Your task to perform on an android device: search for starred emails in the gmail app Image 0: 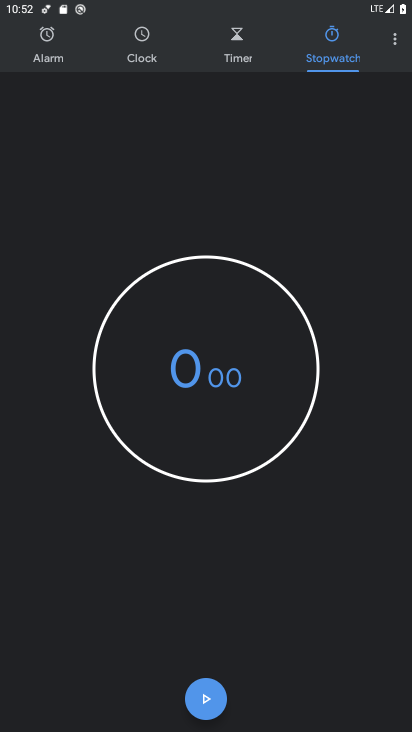
Step 0: press home button
Your task to perform on an android device: search for starred emails in the gmail app Image 1: 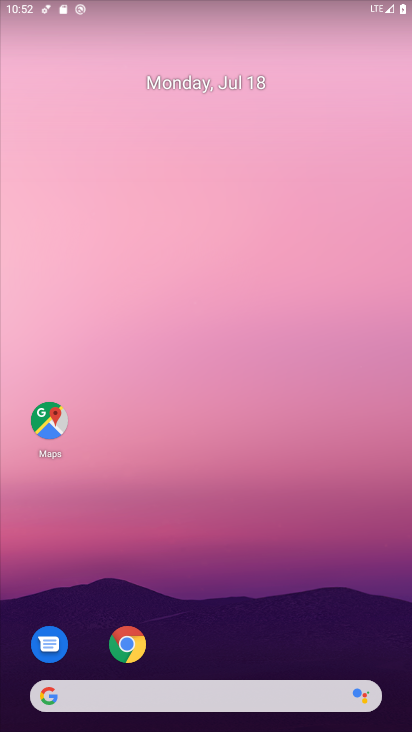
Step 1: drag from (351, 628) to (380, 149)
Your task to perform on an android device: search for starred emails in the gmail app Image 2: 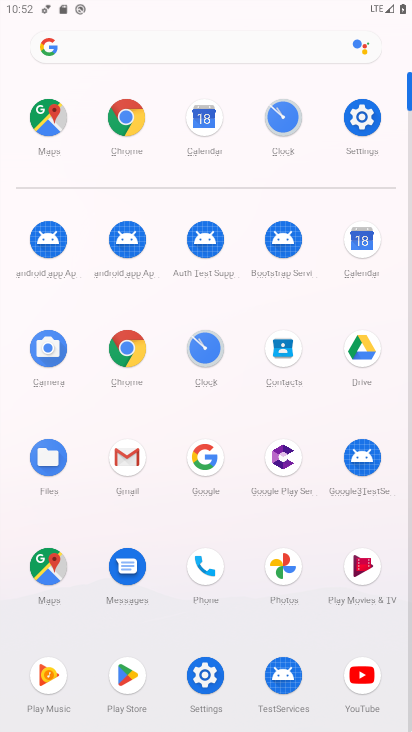
Step 2: click (131, 461)
Your task to perform on an android device: search for starred emails in the gmail app Image 3: 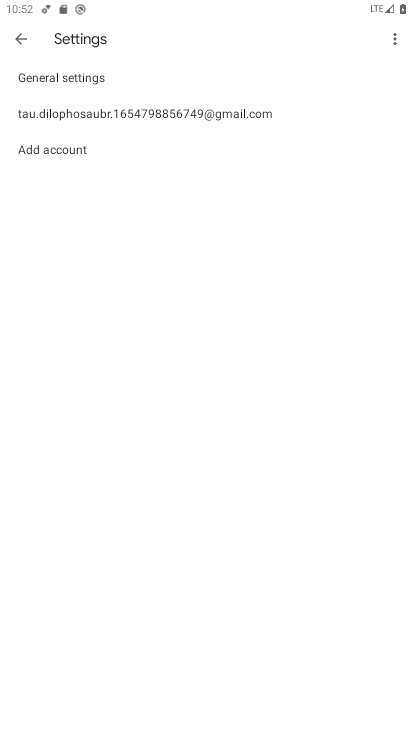
Step 3: press back button
Your task to perform on an android device: search for starred emails in the gmail app Image 4: 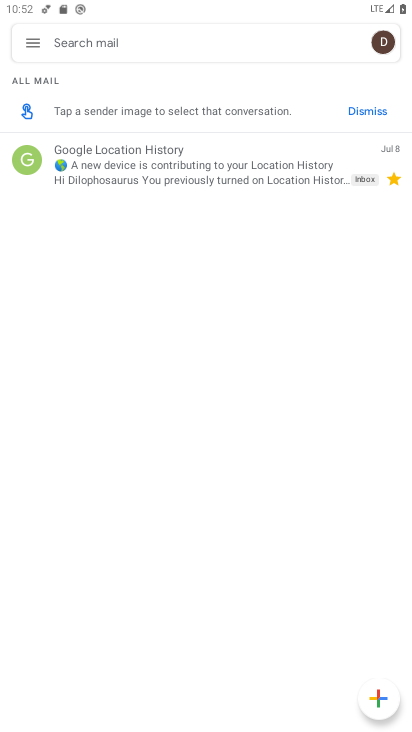
Step 4: click (27, 47)
Your task to perform on an android device: search for starred emails in the gmail app Image 5: 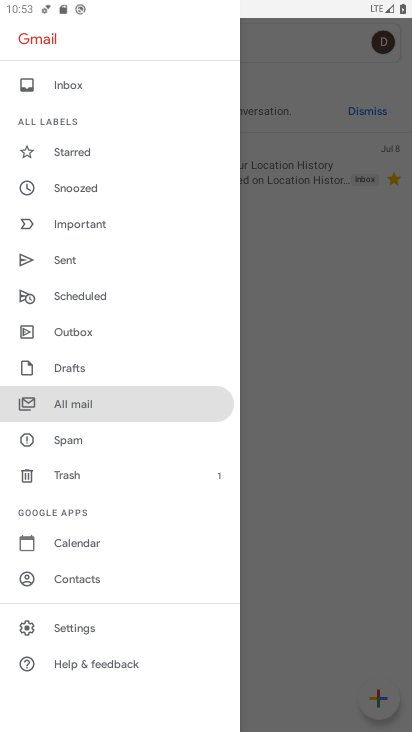
Step 5: drag from (171, 496) to (173, 399)
Your task to perform on an android device: search for starred emails in the gmail app Image 6: 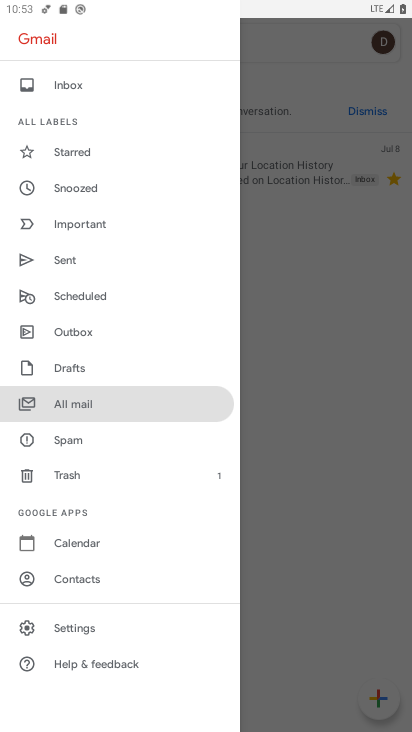
Step 6: drag from (162, 297) to (153, 411)
Your task to perform on an android device: search for starred emails in the gmail app Image 7: 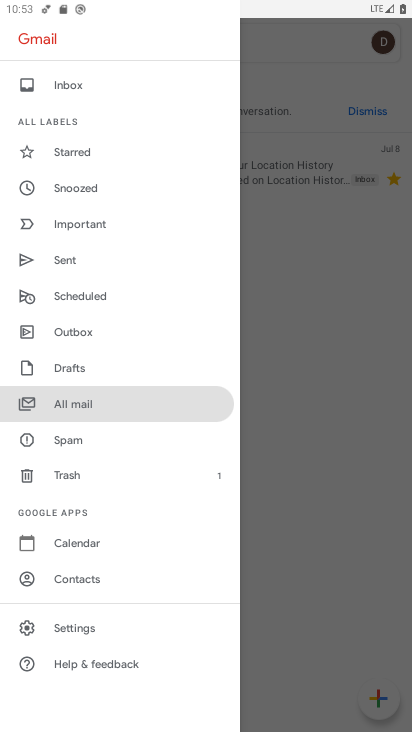
Step 7: click (91, 151)
Your task to perform on an android device: search for starred emails in the gmail app Image 8: 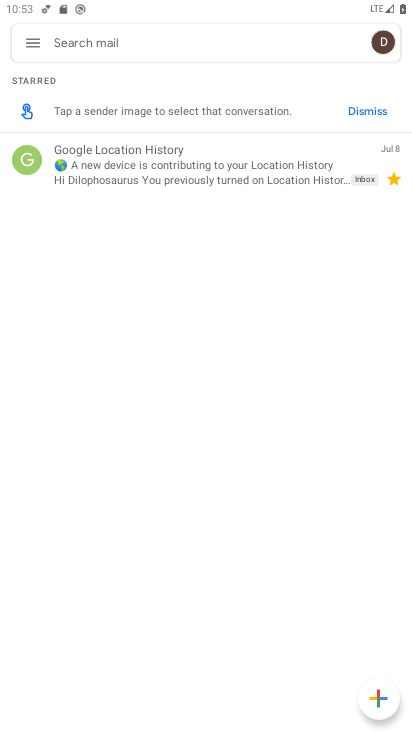
Step 8: task complete